Your task to perform on an android device: Open the web browser Image 0: 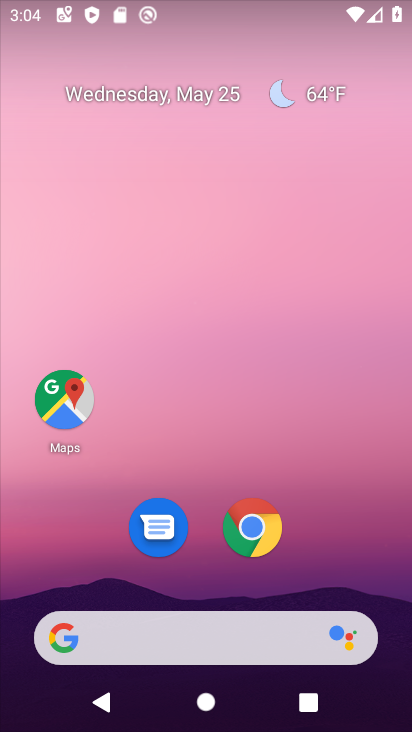
Step 0: click (257, 526)
Your task to perform on an android device: Open the web browser Image 1: 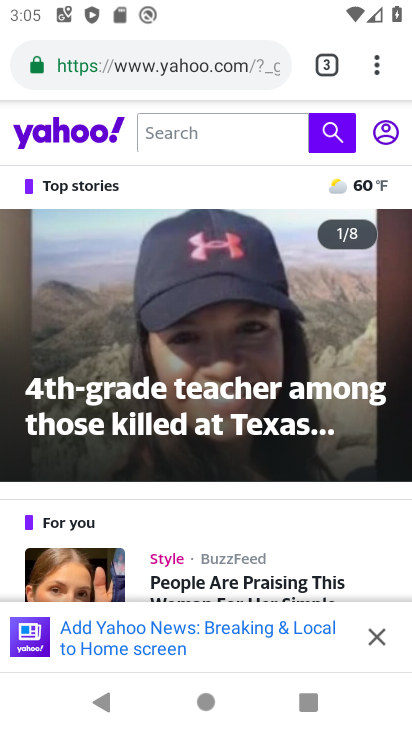
Step 1: task complete